Your task to perform on an android device: Open Youtube and go to the subscriptions tab Image 0: 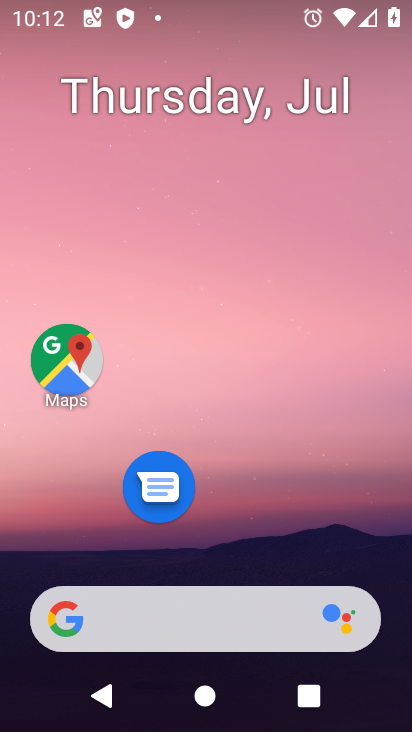
Step 0: drag from (199, 642) to (196, 214)
Your task to perform on an android device: Open Youtube and go to the subscriptions tab Image 1: 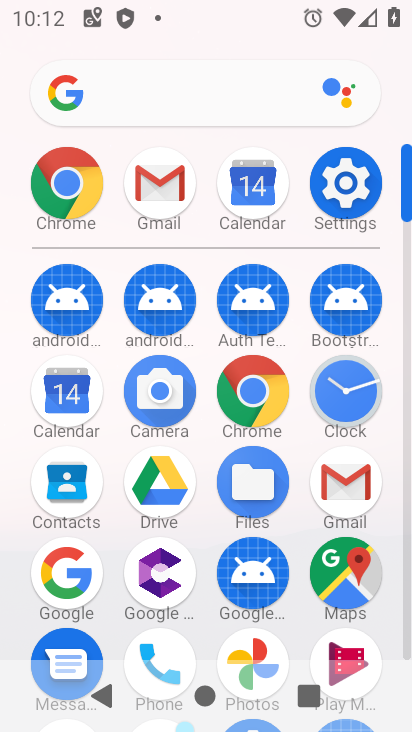
Step 1: drag from (226, 553) to (265, 218)
Your task to perform on an android device: Open Youtube and go to the subscriptions tab Image 2: 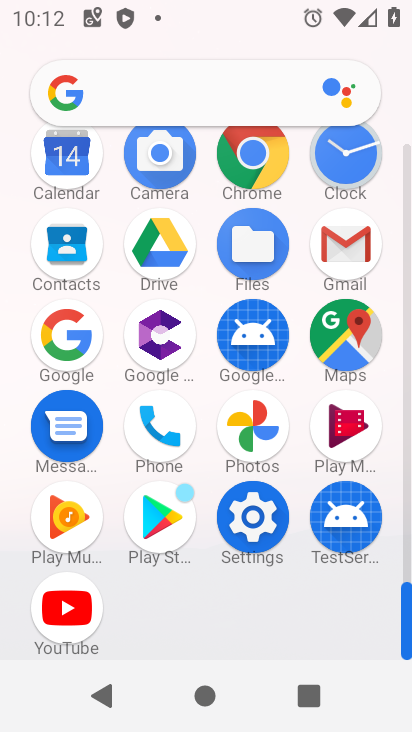
Step 2: click (66, 607)
Your task to perform on an android device: Open Youtube and go to the subscriptions tab Image 3: 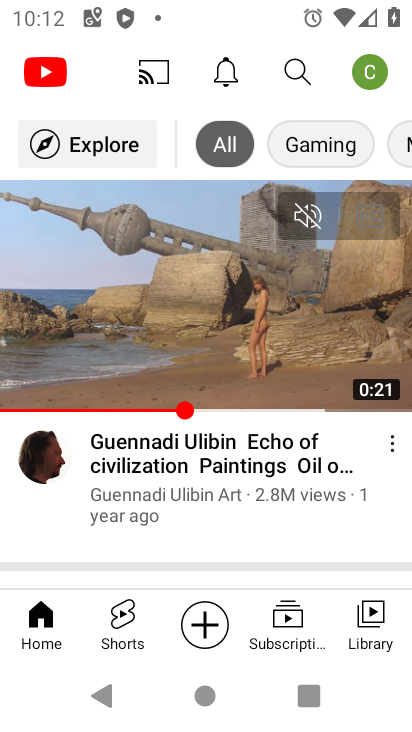
Step 3: click (285, 635)
Your task to perform on an android device: Open Youtube and go to the subscriptions tab Image 4: 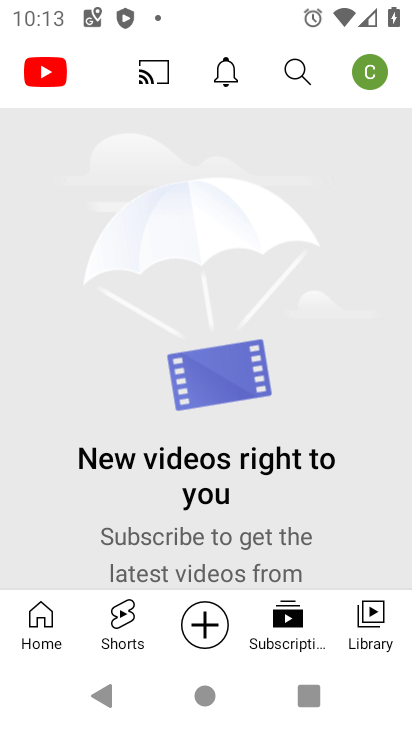
Step 4: task complete